Your task to perform on an android device: Turn on the flashlight Image 0: 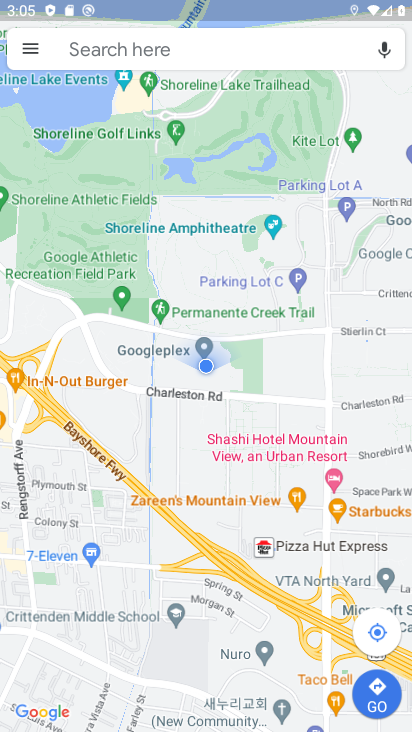
Step 0: drag from (342, 9) to (232, 729)
Your task to perform on an android device: Turn on the flashlight Image 1: 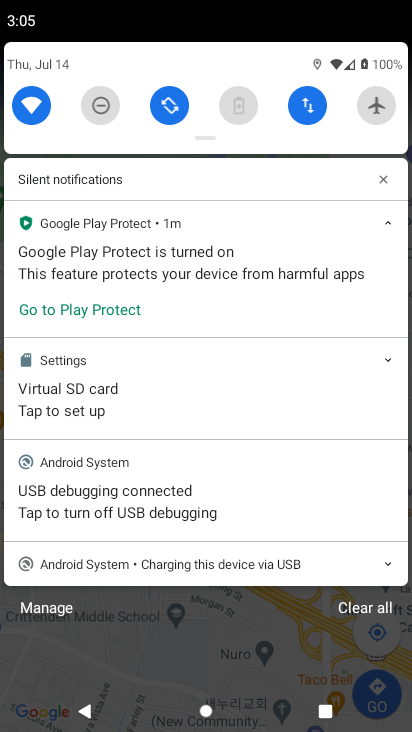
Step 1: drag from (233, 140) to (169, 700)
Your task to perform on an android device: Turn on the flashlight Image 2: 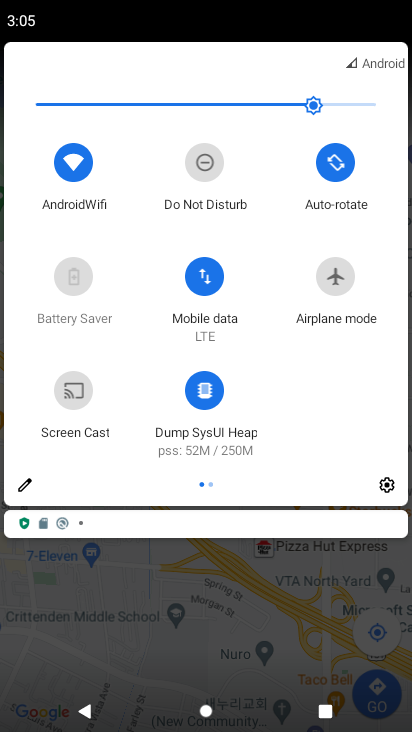
Step 2: click (18, 477)
Your task to perform on an android device: Turn on the flashlight Image 3: 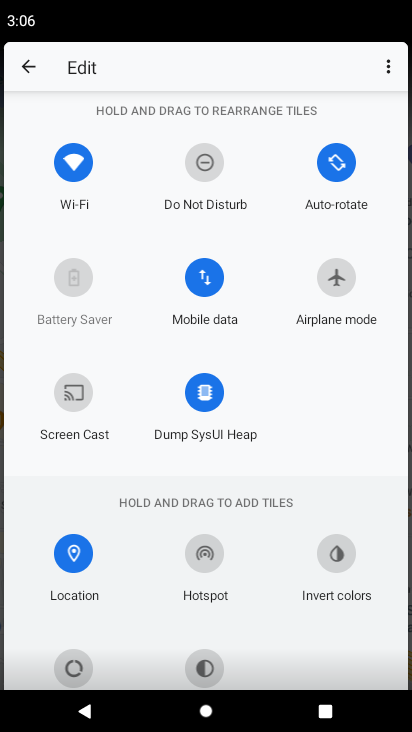
Step 3: task complete